Your task to perform on an android device: Go to sound settings Image 0: 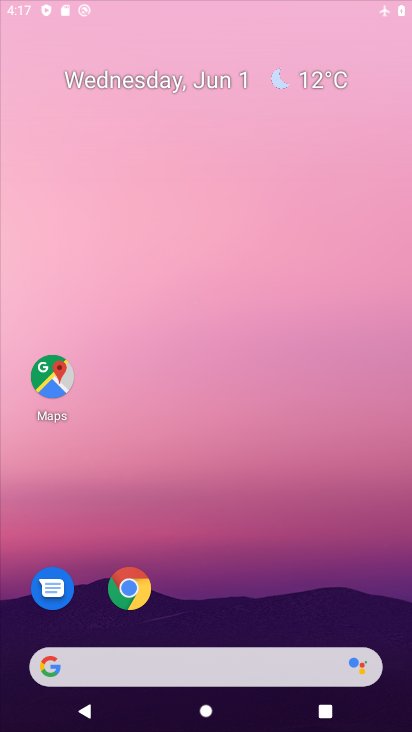
Step 0: drag from (292, 592) to (205, 86)
Your task to perform on an android device: Go to sound settings Image 1: 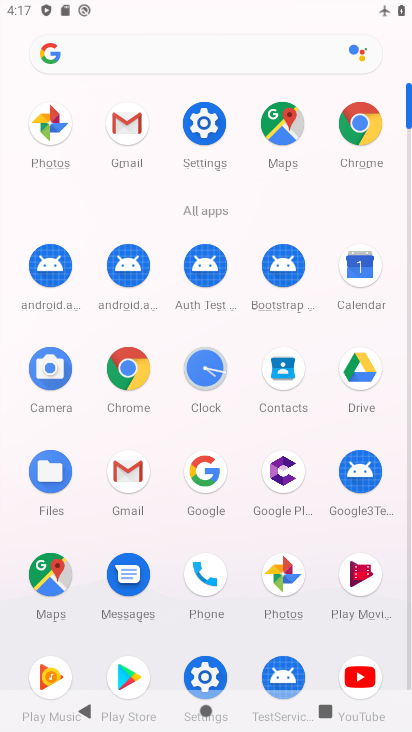
Step 1: click (203, 138)
Your task to perform on an android device: Go to sound settings Image 2: 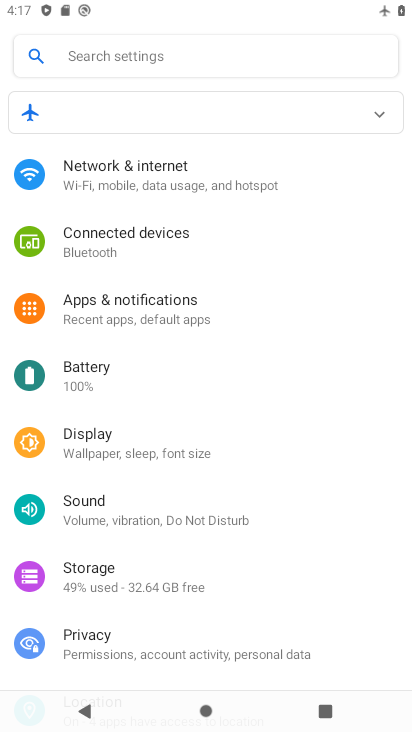
Step 2: click (158, 510)
Your task to perform on an android device: Go to sound settings Image 3: 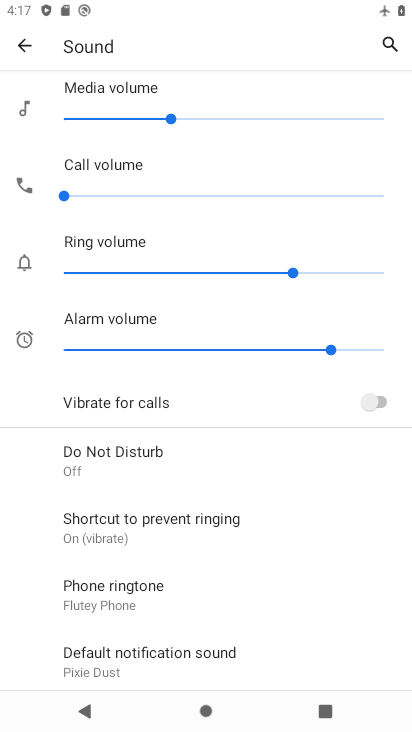
Step 3: task complete